Your task to perform on an android device: Open Google Image 0: 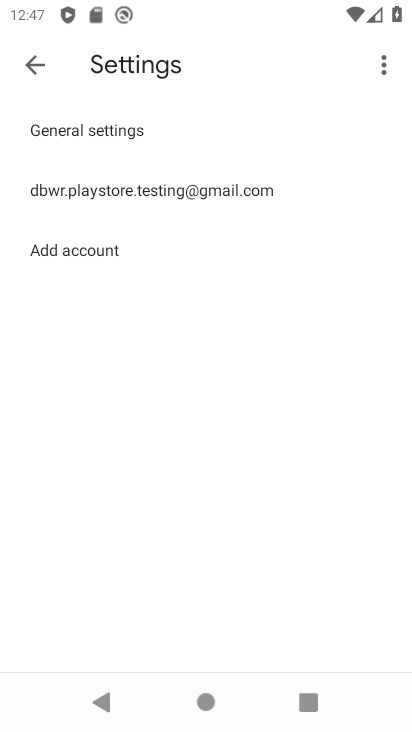
Step 0: press home button
Your task to perform on an android device: Open Google Image 1: 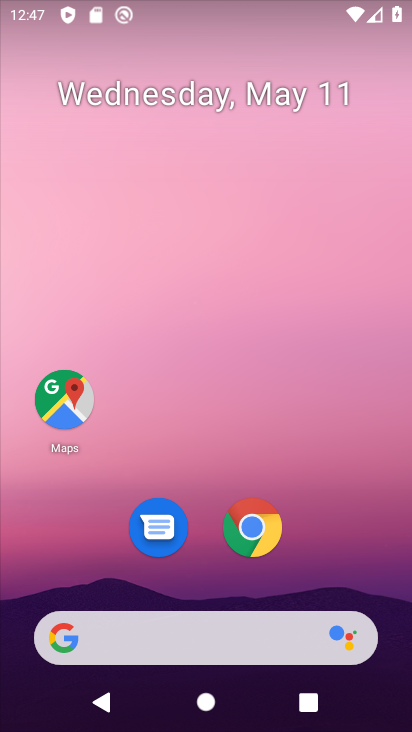
Step 1: drag from (328, 554) to (381, 189)
Your task to perform on an android device: Open Google Image 2: 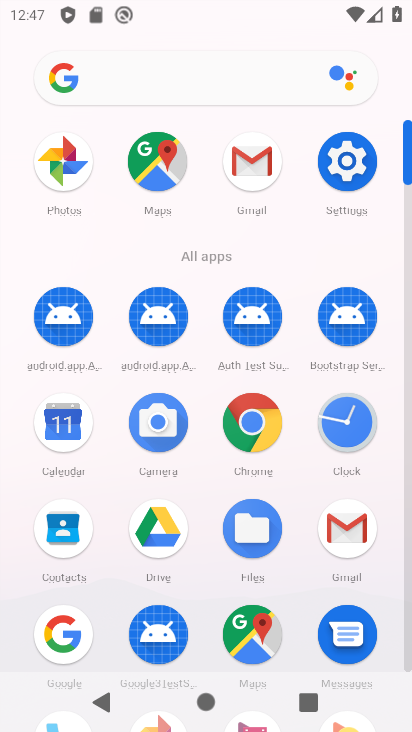
Step 2: click (37, 649)
Your task to perform on an android device: Open Google Image 3: 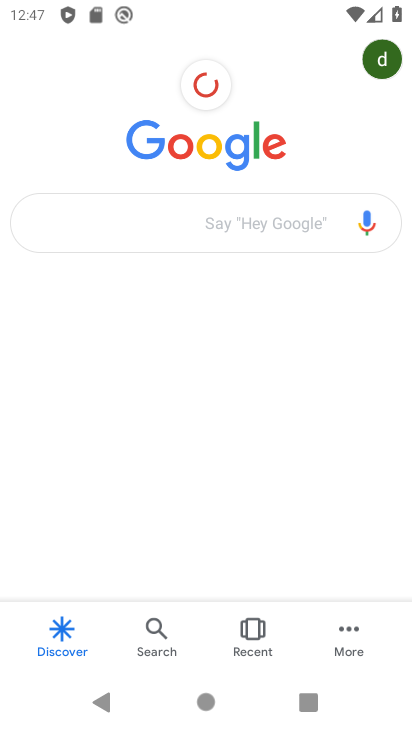
Step 3: task complete